Your task to perform on an android device: find photos in the google photos app Image 0: 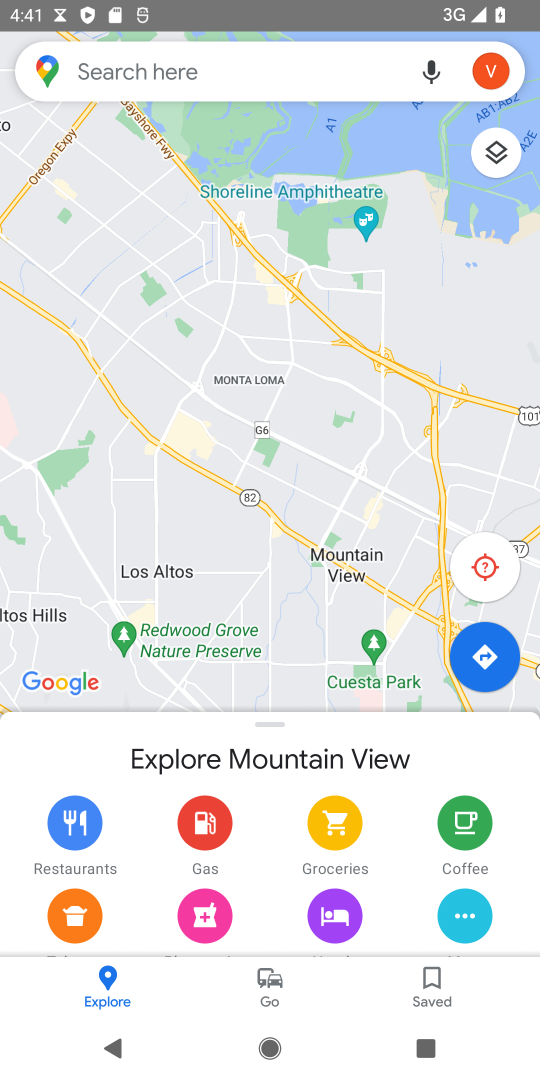
Step 0: press home button
Your task to perform on an android device: find photos in the google photos app Image 1: 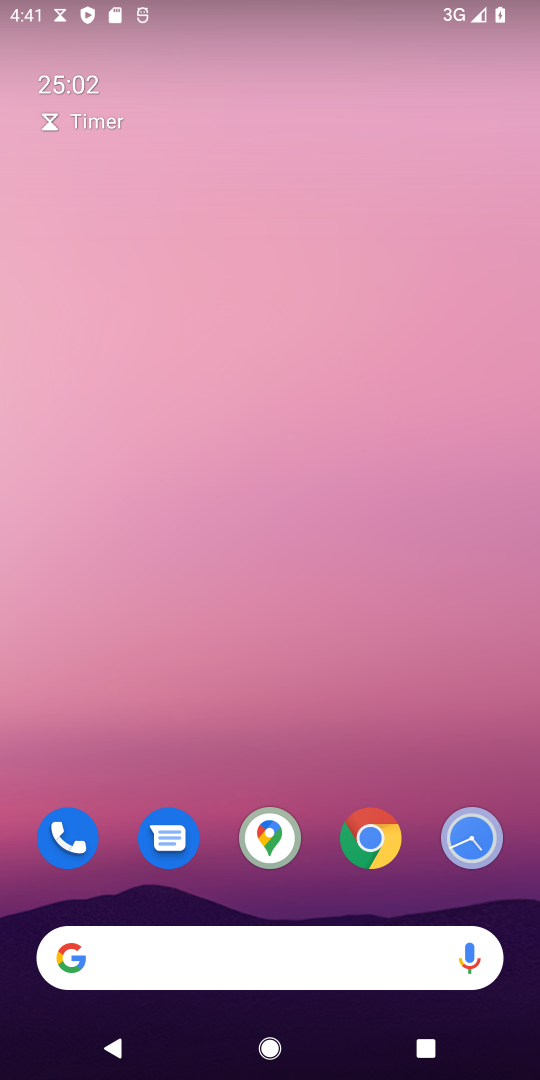
Step 1: drag from (321, 777) to (245, 277)
Your task to perform on an android device: find photos in the google photos app Image 2: 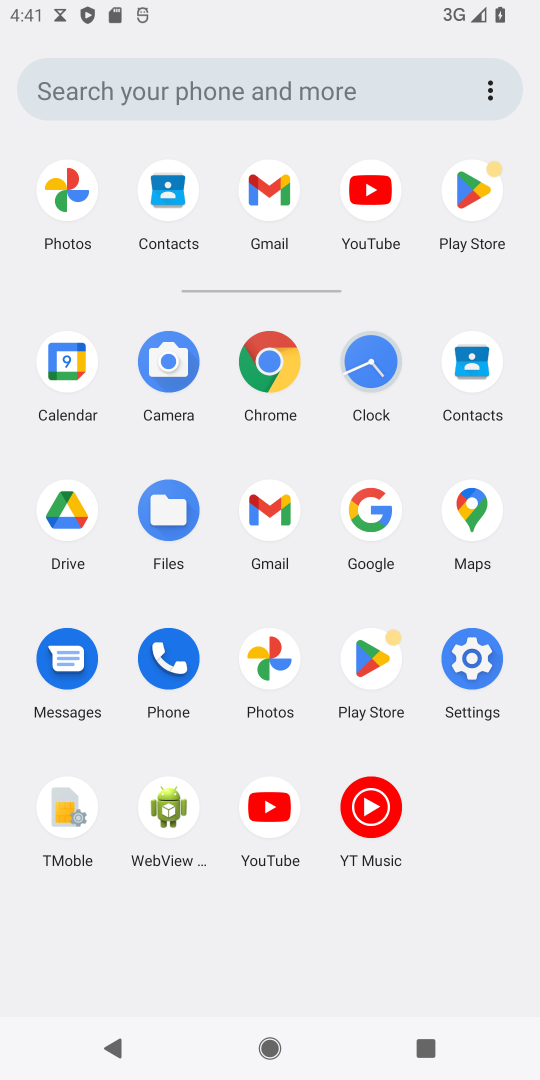
Step 2: click (248, 672)
Your task to perform on an android device: find photos in the google photos app Image 3: 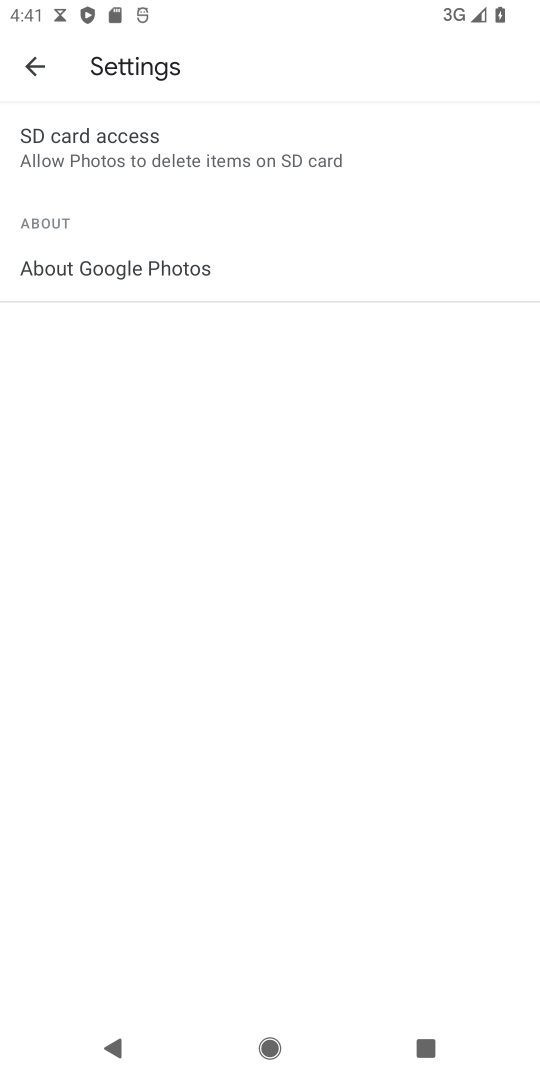
Step 3: click (36, 79)
Your task to perform on an android device: find photos in the google photos app Image 4: 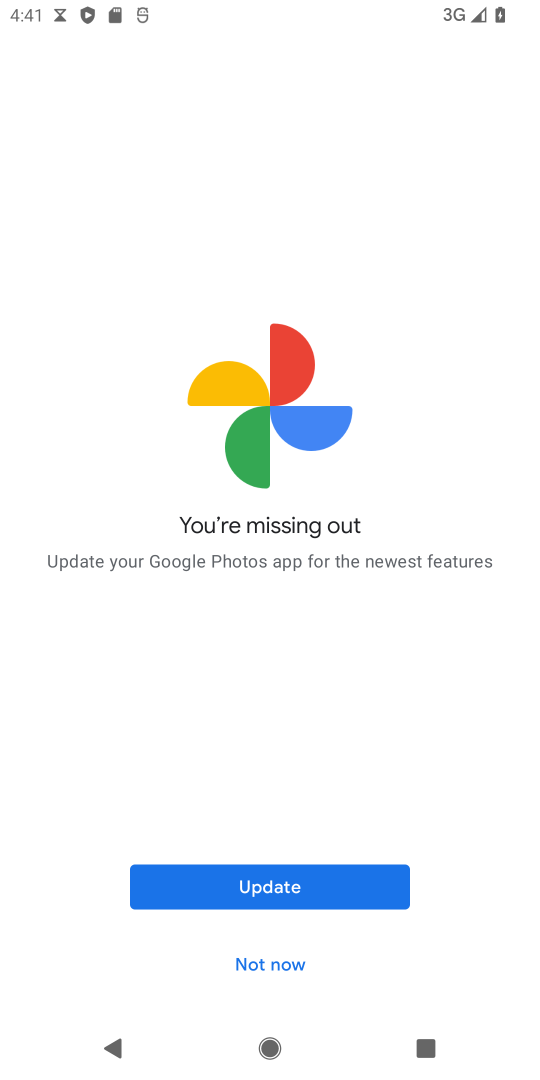
Step 4: drag from (138, 955) to (87, 905)
Your task to perform on an android device: find photos in the google photos app Image 5: 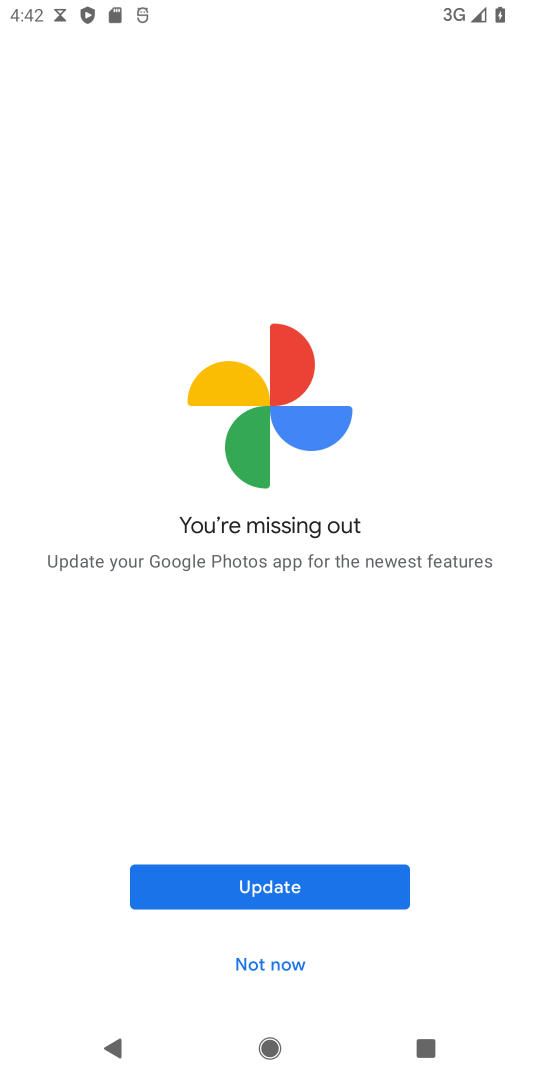
Step 5: click (199, 890)
Your task to perform on an android device: find photos in the google photos app Image 6: 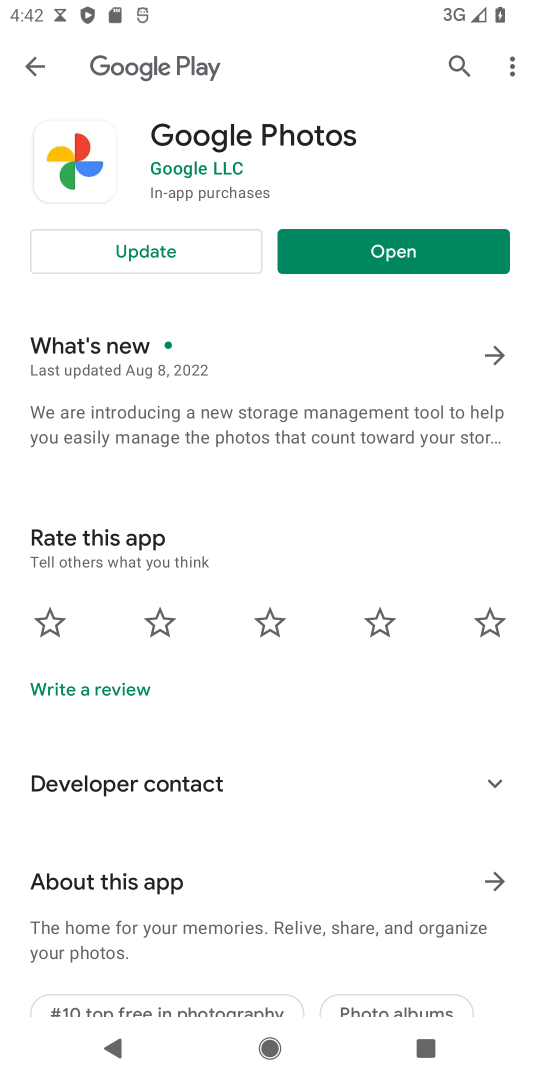
Step 6: click (186, 241)
Your task to perform on an android device: find photos in the google photos app Image 7: 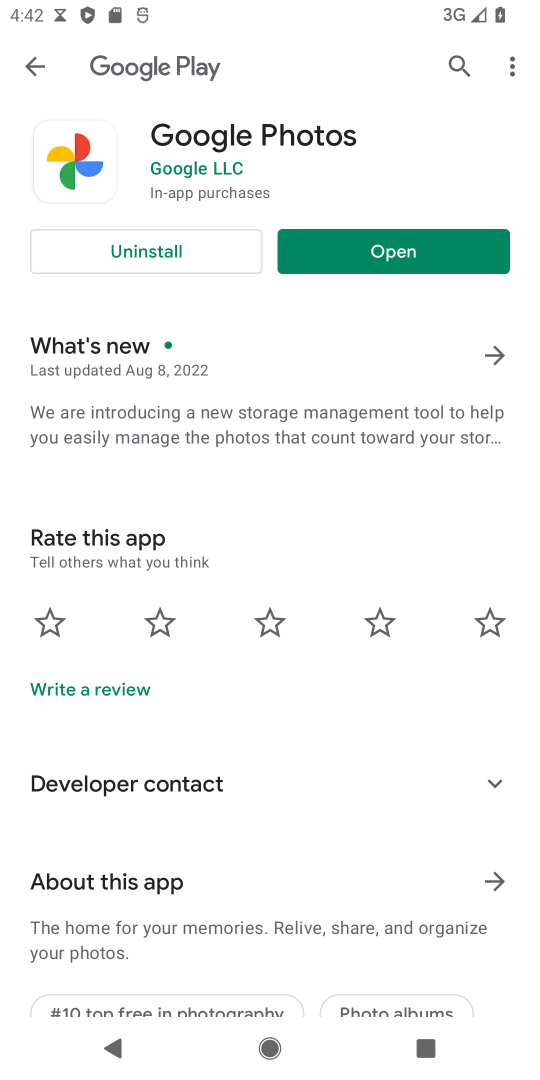
Step 7: click (348, 268)
Your task to perform on an android device: find photos in the google photos app Image 8: 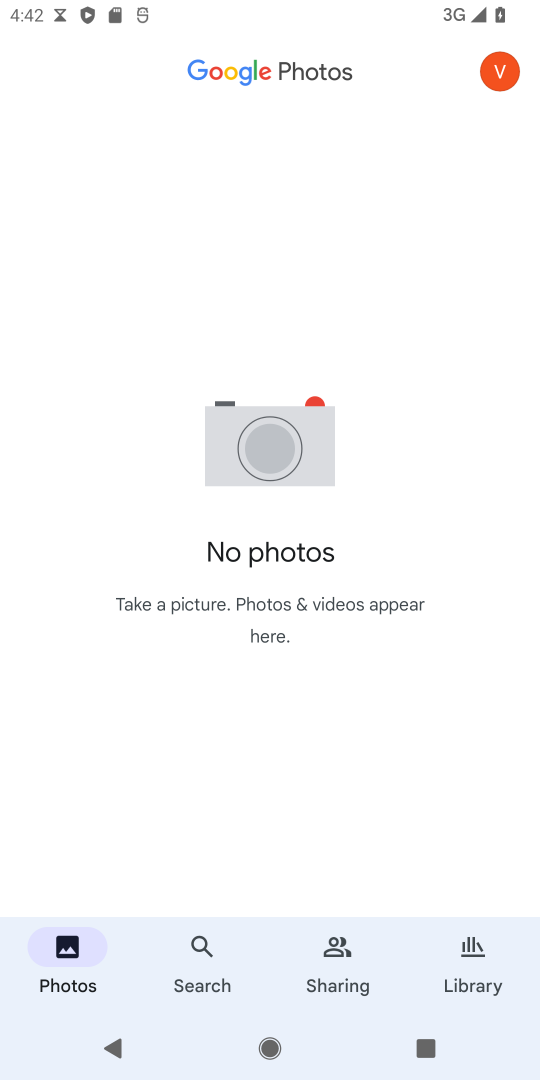
Step 8: task complete